Your task to perform on an android device: Open the calendar app, open the side menu, and click the "Day" option Image 0: 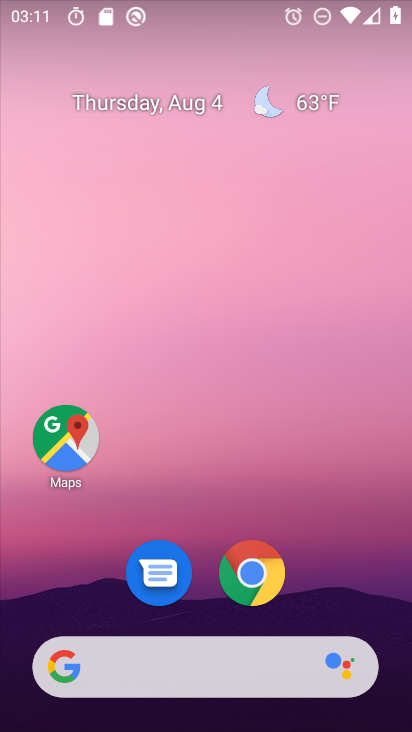
Step 0: drag from (335, 565) to (323, 153)
Your task to perform on an android device: Open the calendar app, open the side menu, and click the "Day" option Image 1: 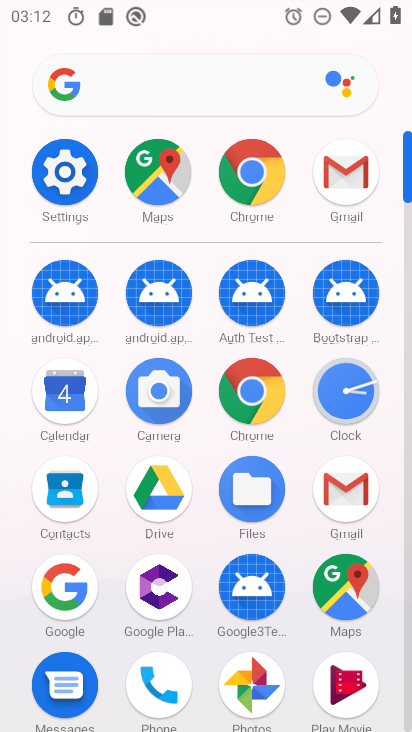
Step 1: click (71, 393)
Your task to perform on an android device: Open the calendar app, open the side menu, and click the "Day" option Image 2: 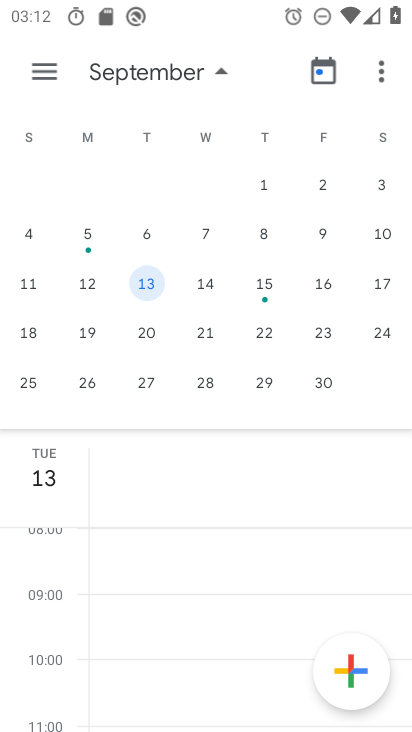
Step 2: click (34, 71)
Your task to perform on an android device: Open the calendar app, open the side menu, and click the "Day" option Image 3: 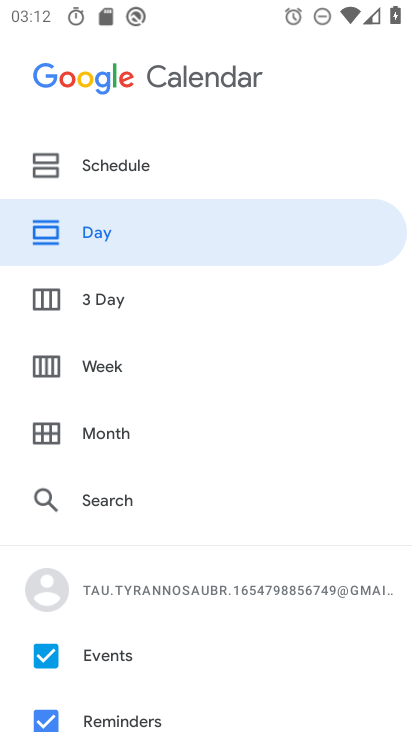
Step 3: click (196, 215)
Your task to perform on an android device: Open the calendar app, open the side menu, and click the "Day" option Image 4: 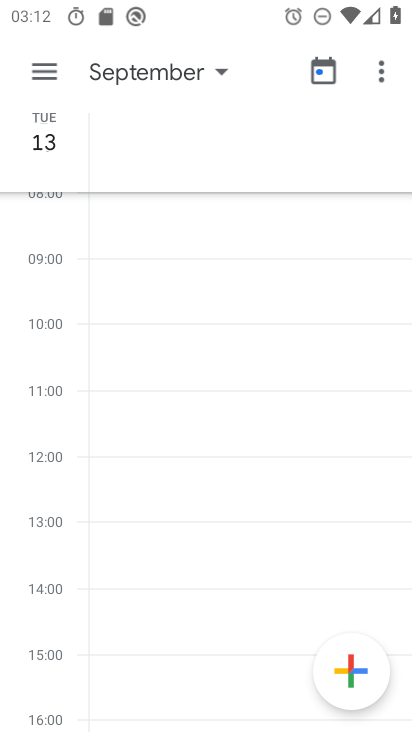
Step 4: task complete